Your task to perform on an android device: change text size in settings app Image 0: 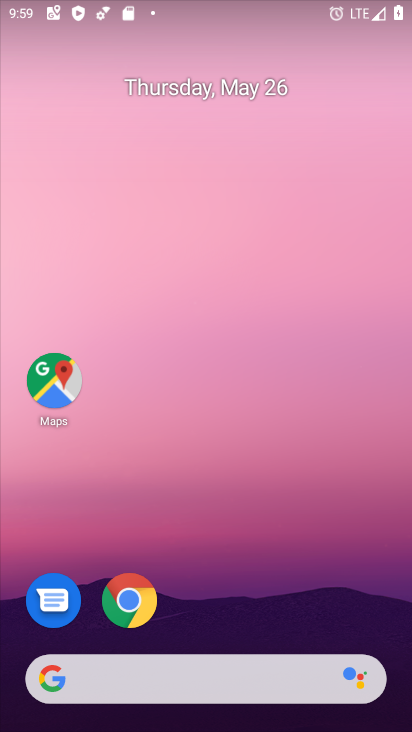
Step 0: drag from (282, 597) to (247, 55)
Your task to perform on an android device: change text size in settings app Image 1: 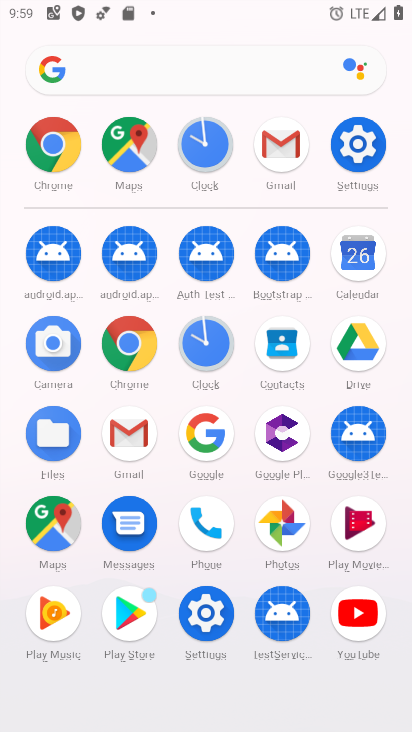
Step 1: click (364, 150)
Your task to perform on an android device: change text size in settings app Image 2: 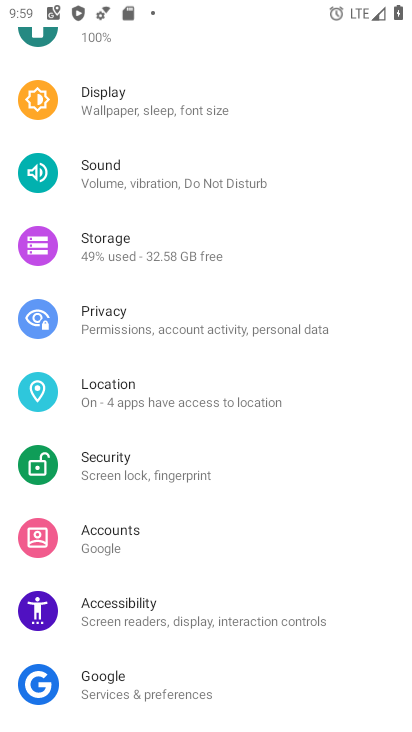
Step 2: drag from (213, 627) to (288, 201)
Your task to perform on an android device: change text size in settings app Image 3: 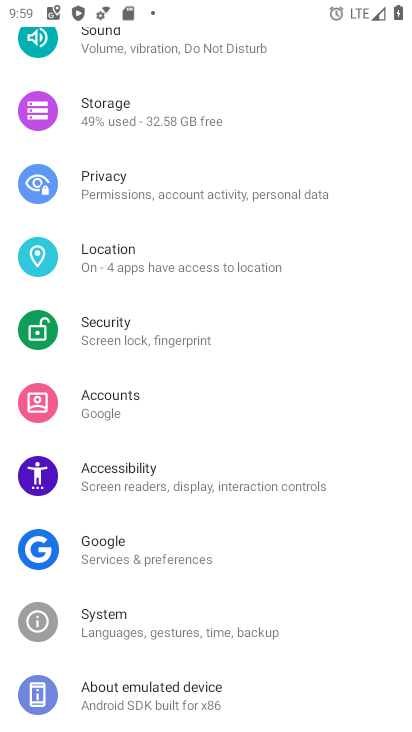
Step 3: click (169, 614)
Your task to perform on an android device: change text size in settings app Image 4: 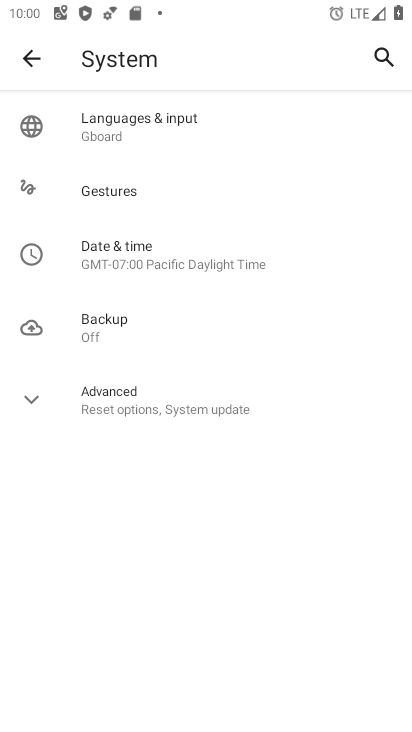
Step 4: click (156, 140)
Your task to perform on an android device: change text size in settings app Image 5: 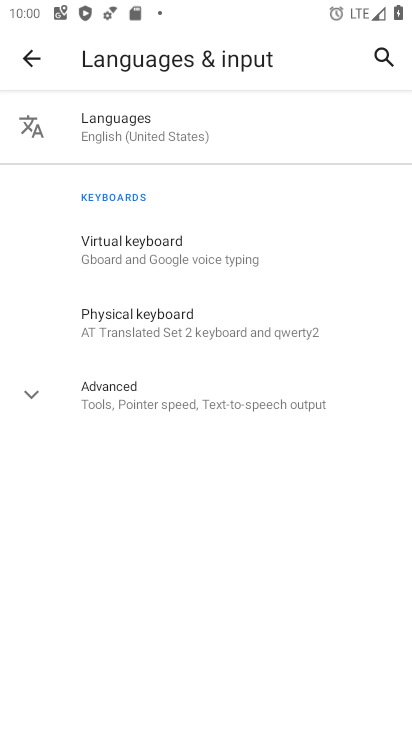
Step 5: click (29, 56)
Your task to perform on an android device: change text size in settings app Image 6: 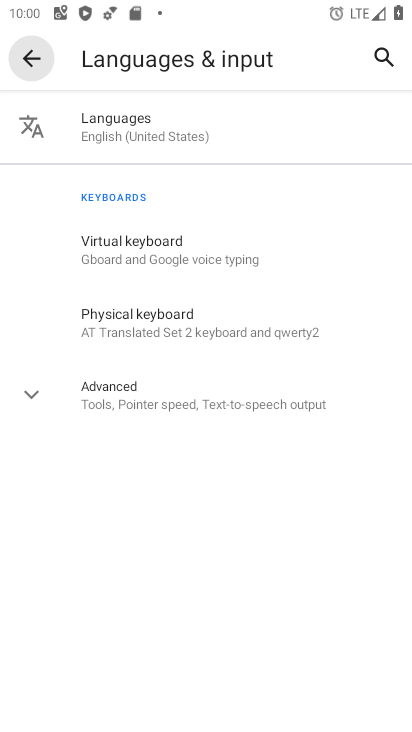
Step 6: click (29, 56)
Your task to perform on an android device: change text size in settings app Image 7: 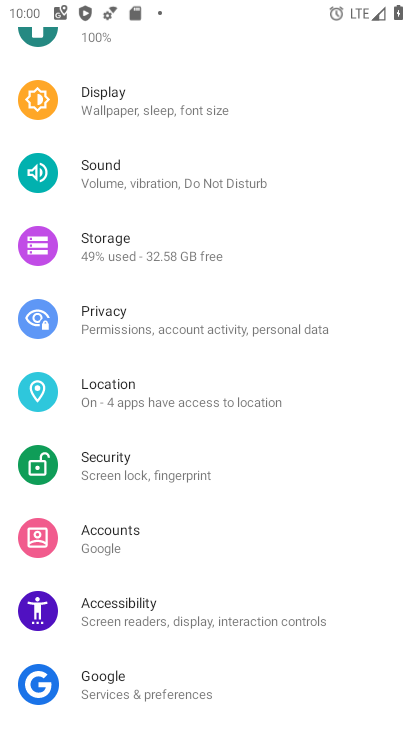
Step 7: drag from (166, 220) to (145, 467)
Your task to perform on an android device: change text size in settings app Image 8: 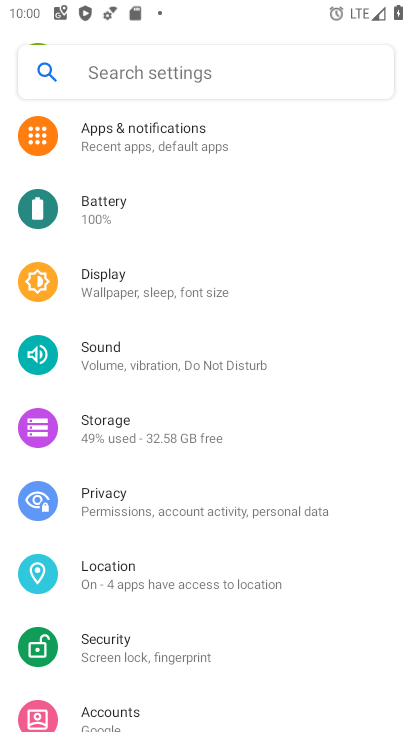
Step 8: click (157, 279)
Your task to perform on an android device: change text size in settings app Image 9: 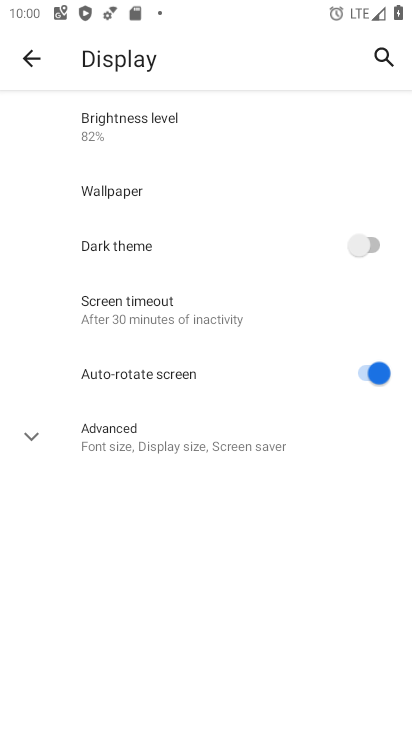
Step 9: click (161, 442)
Your task to perform on an android device: change text size in settings app Image 10: 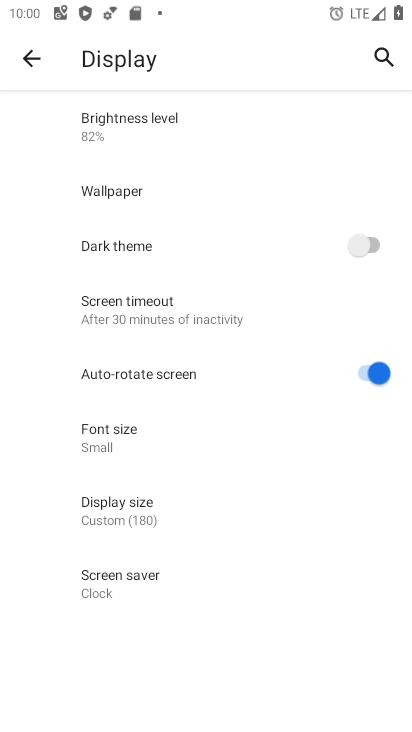
Step 10: click (157, 435)
Your task to perform on an android device: change text size in settings app Image 11: 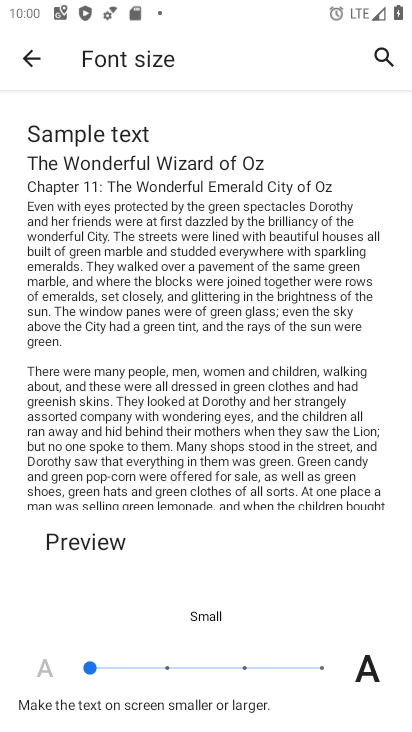
Step 11: click (128, 659)
Your task to perform on an android device: change text size in settings app Image 12: 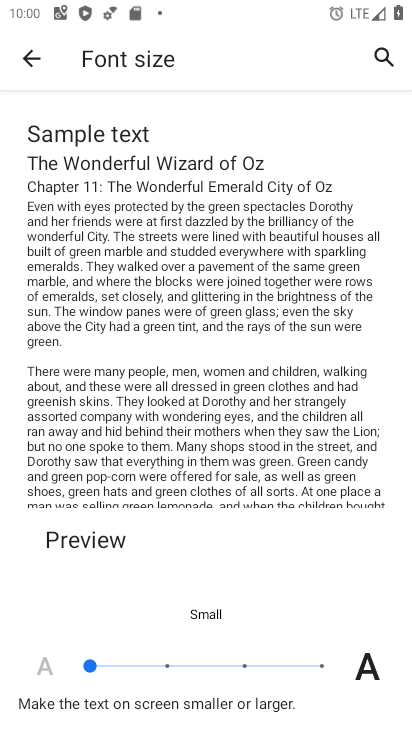
Step 12: click (140, 657)
Your task to perform on an android device: change text size in settings app Image 13: 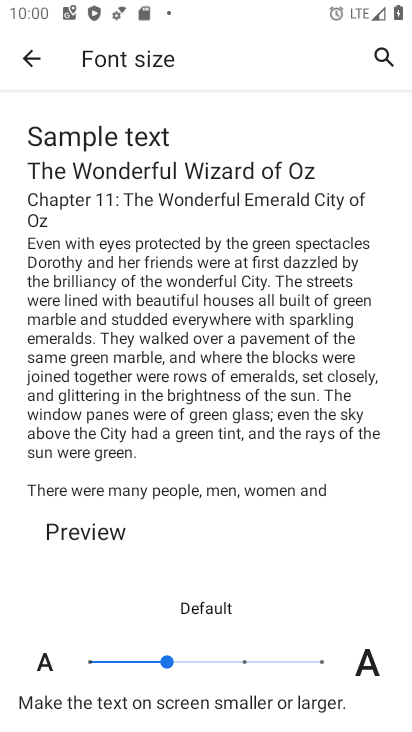
Step 13: task complete